Your task to perform on an android device: Open Youtube and go to the subscriptions tab Image 0: 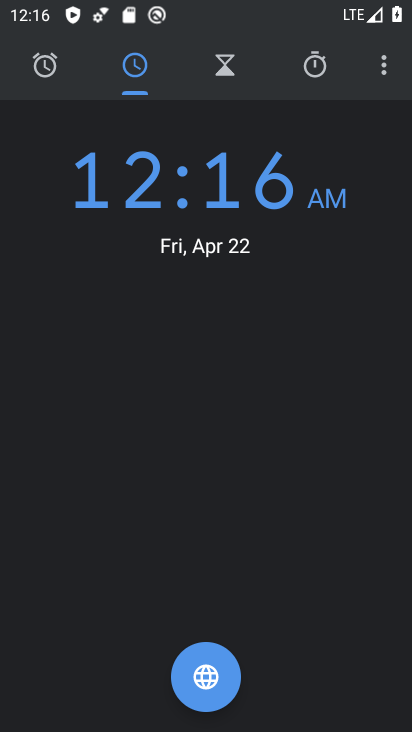
Step 0: press back button
Your task to perform on an android device: Open Youtube and go to the subscriptions tab Image 1: 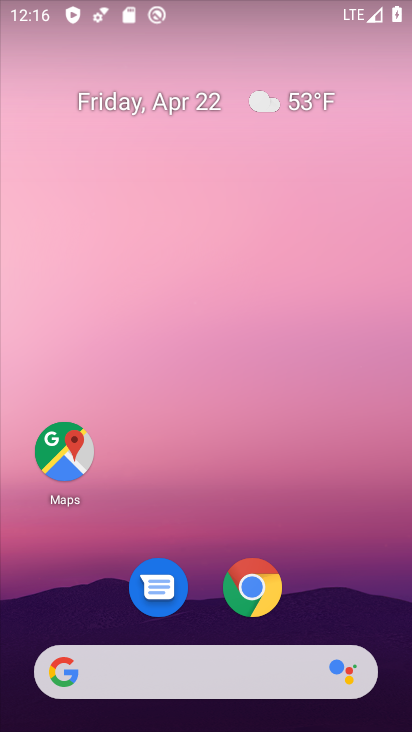
Step 1: drag from (178, 608) to (280, 152)
Your task to perform on an android device: Open Youtube and go to the subscriptions tab Image 2: 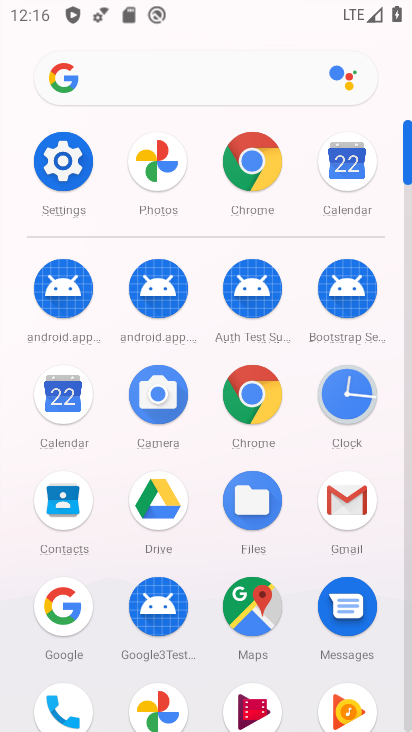
Step 2: drag from (225, 636) to (332, 62)
Your task to perform on an android device: Open Youtube and go to the subscriptions tab Image 3: 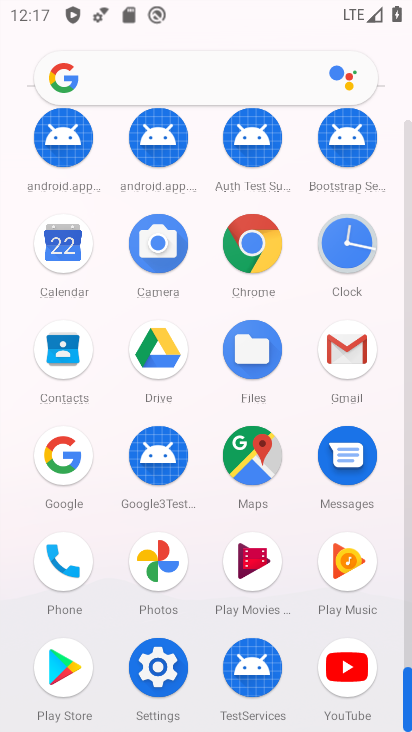
Step 3: click (331, 673)
Your task to perform on an android device: Open Youtube and go to the subscriptions tab Image 4: 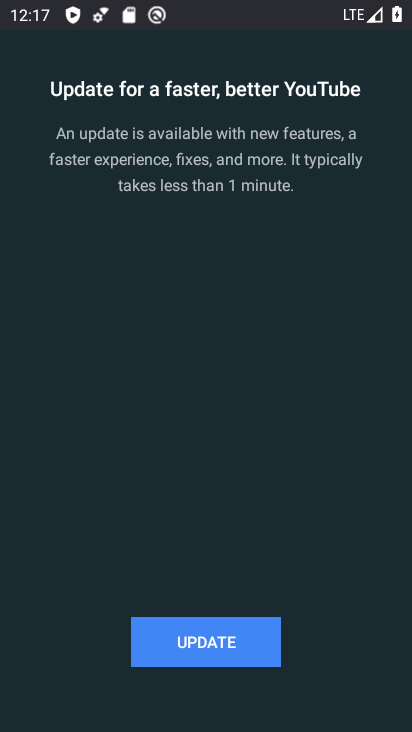
Step 4: press home button
Your task to perform on an android device: Open Youtube and go to the subscriptions tab Image 5: 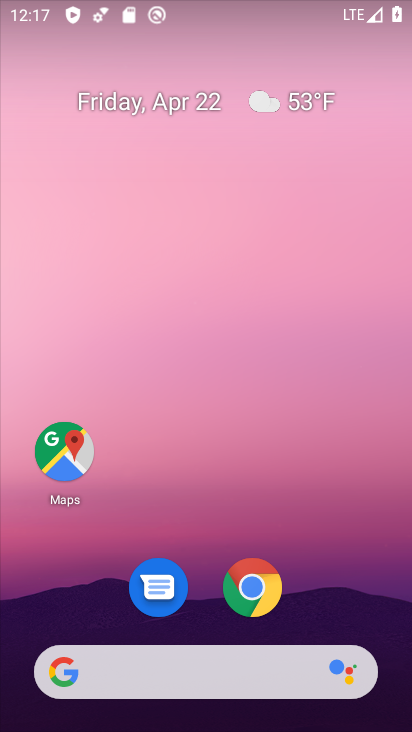
Step 5: drag from (210, 470) to (312, 68)
Your task to perform on an android device: Open Youtube and go to the subscriptions tab Image 6: 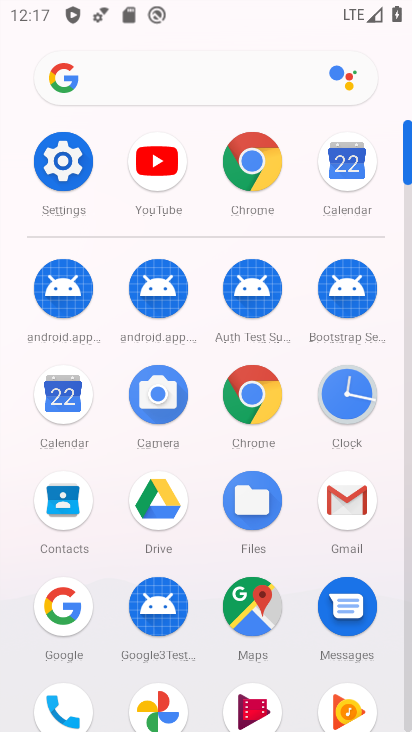
Step 6: click (148, 164)
Your task to perform on an android device: Open Youtube and go to the subscriptions tab Image 7: 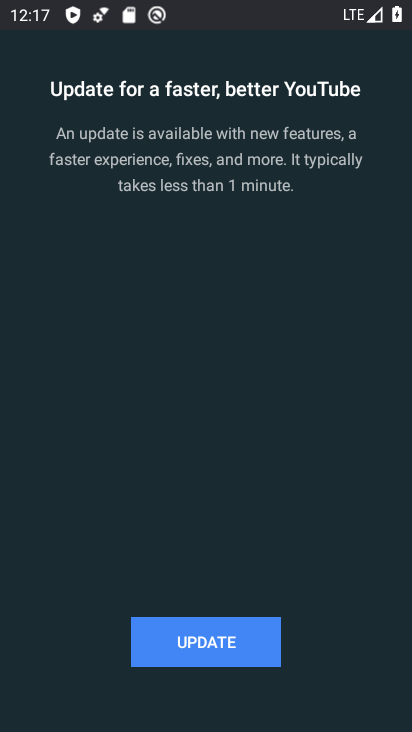
Step 7: click (212, 652)
Your task to perform on an android device: Open Youtube and go to the subscriptions tab Image 8: 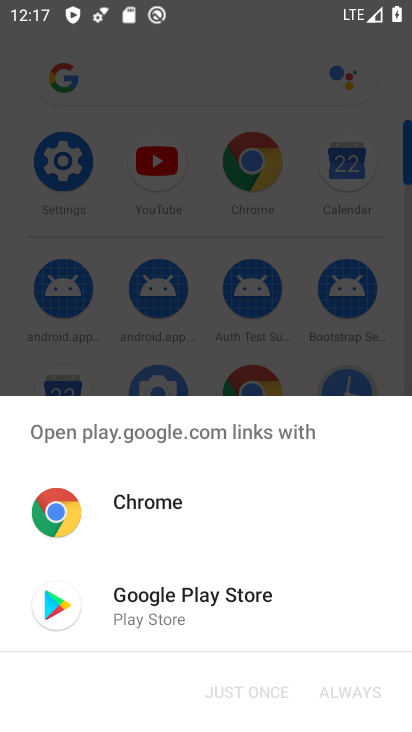
Step 8: click (148, 602)
Your task to perform on an android device: Open Youtube and go to the subscriptions tab Image 9: 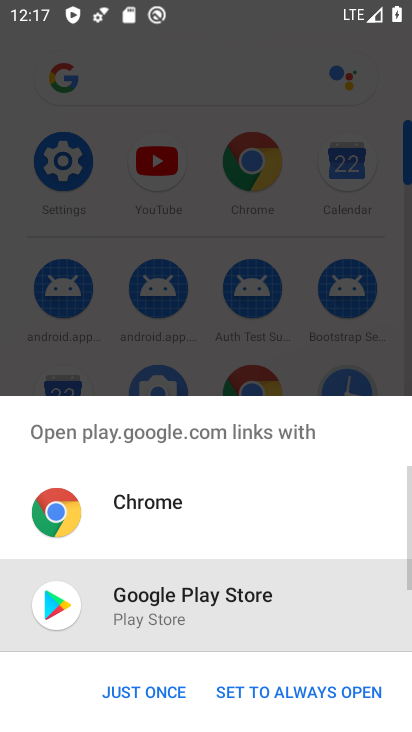
Step 9: click (169, 694)
Your task to perform on an android device: Open Youtube and go to the subscriptions tab Image 10: 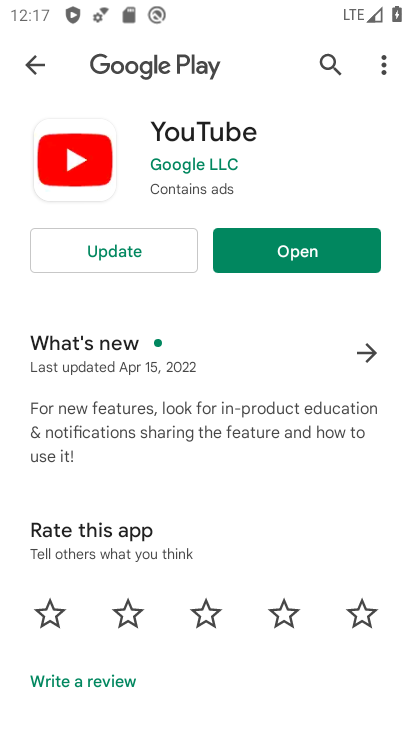
Step 10: click (136, 251)
Your task to perform on an android device: Open Youtube and go to the subscriptions tab Image 11: 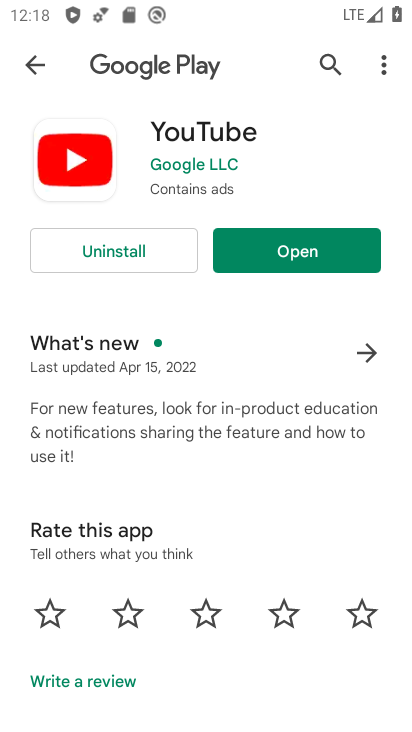
Step 11: click (275, 240)
Your task to perform on an android device: Open Youtube and go to the subscriptions tab Image 12: 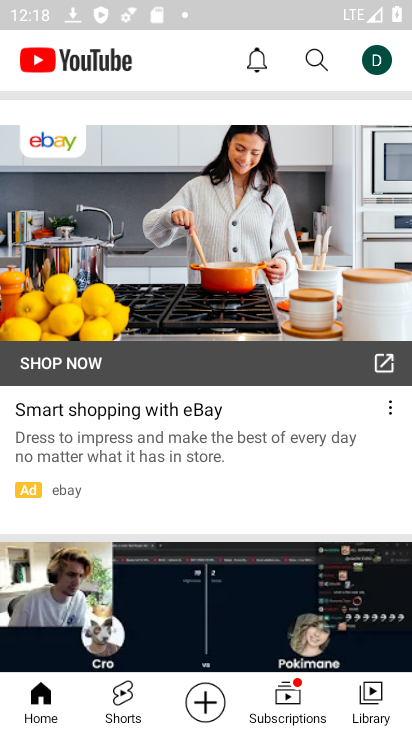
Step 12: click (285, 710)
Your task to perform on an android device: Open Youtube and go to the subscriptions tab Image 13: 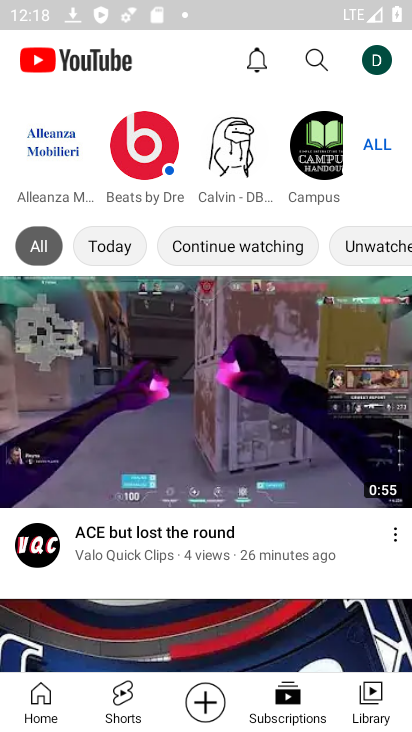
Step 13: task complete